Your task to perform on an android device: turn off notifications in google photos Image 0: 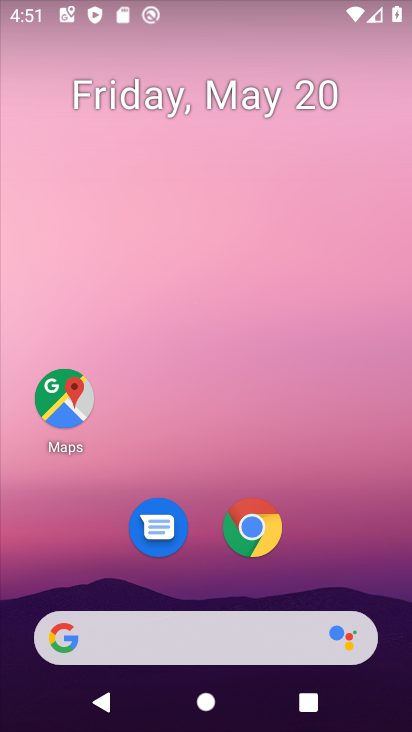
Step 0: drag from (214, 602) to (197, 166)
Your task to perform on an android device: turn off notifications in google photos Image 1: 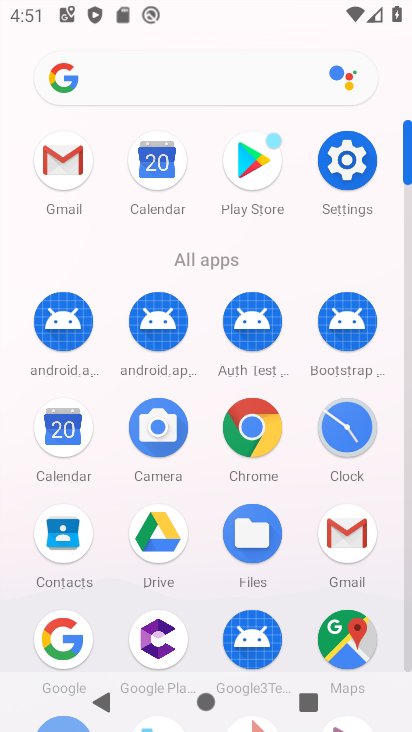
Step 1: drag from (192, 649) to (208, 309)
Your task to perform on an android device: turn off notifications in google photos Image 2: 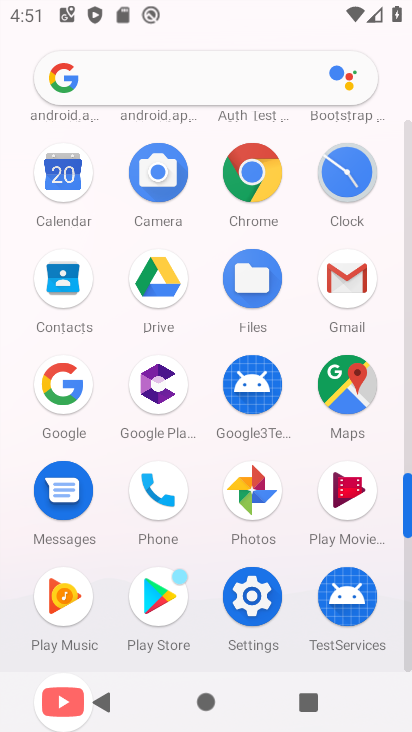
Step 2: click (258, 480)
Your task to perform on an android device: turn off notifications in google photos Image 3: 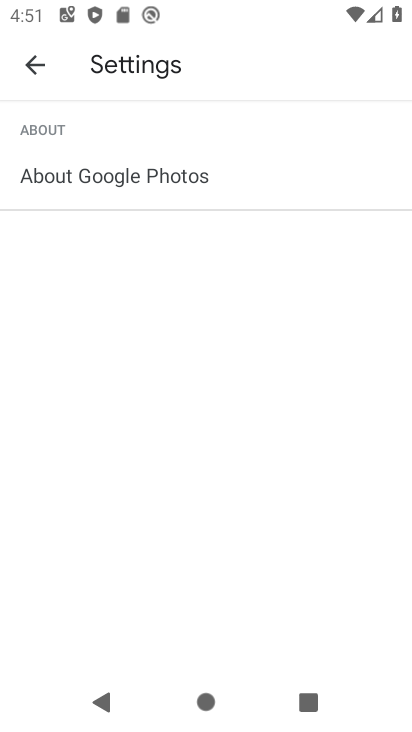
Step 3: click (31, 69)
Your task to perform on an android device: turn off notifications in google photos Image 4: 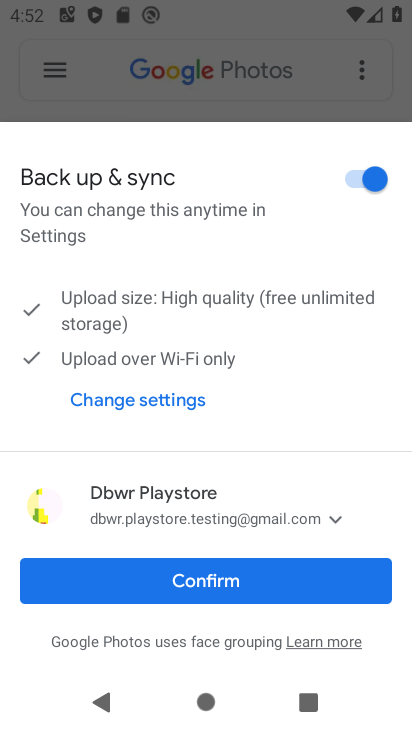
Step 4: click (227, 584)
Your task to perform on an android device: turn off notifications in google photos Image 5: 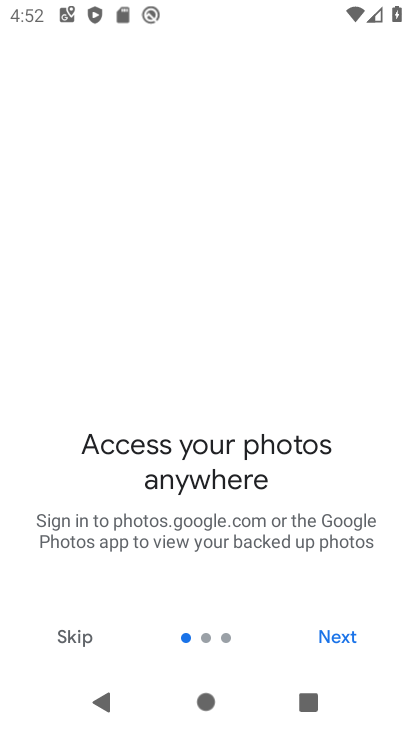
Step 5: click (300, 631)
Your task to perform on an android device: turn off notifications in google photos Image 6: 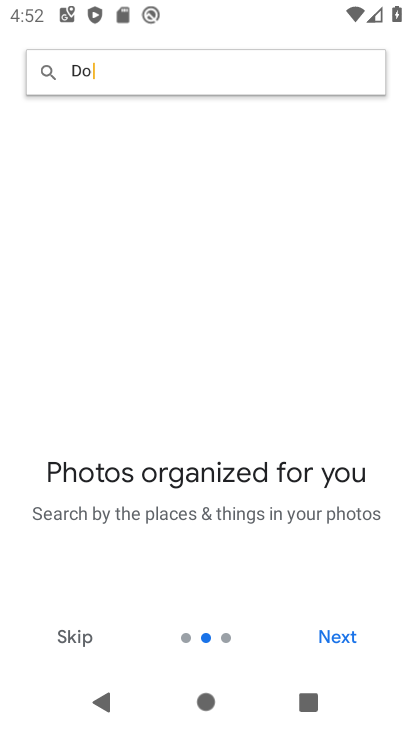
Step 6: click (313, 635)
Your task to perform on an android device: turn off notifications in google photos Image 7: 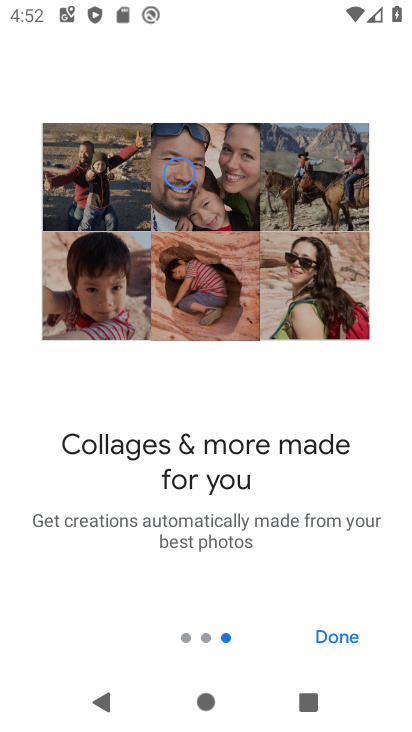
Step 7: click (313, 635)
Your task to perform on an android device: turn off notifications in google photos Image 8: 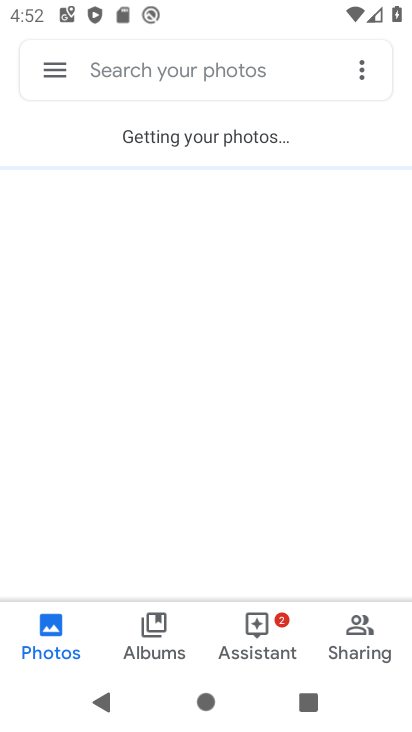
Step 8: click (54, 70)
Your task to perform on an android device: turn off notifications in google photos Image 9: 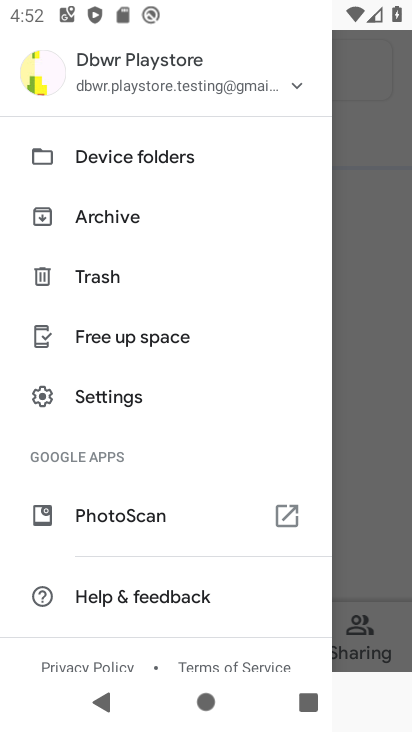
Step 9: click (127, 405)
Your task to perform on an android device: turn off notifications in google photos Image 10: 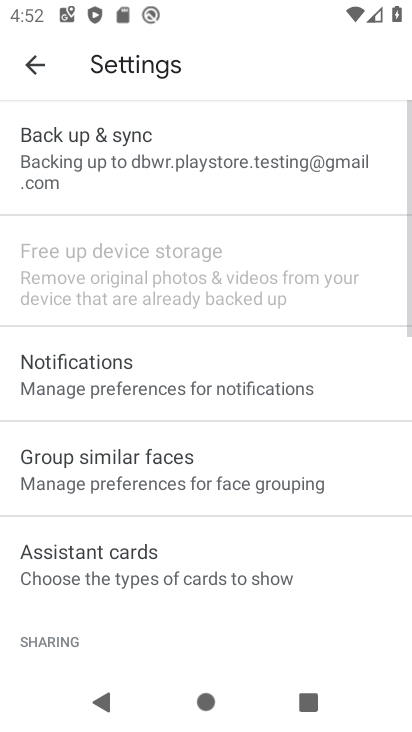
Step 10: click (101, 155)
Your task to perform on an android device: turn off notifications in google photos Image 11: 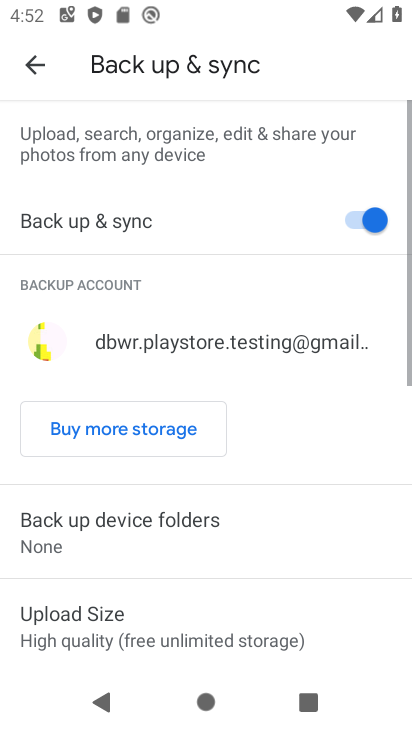
Step 11: click (35, 72)
Your task to perform on an android device: turn off notifications in google photos Image 12: 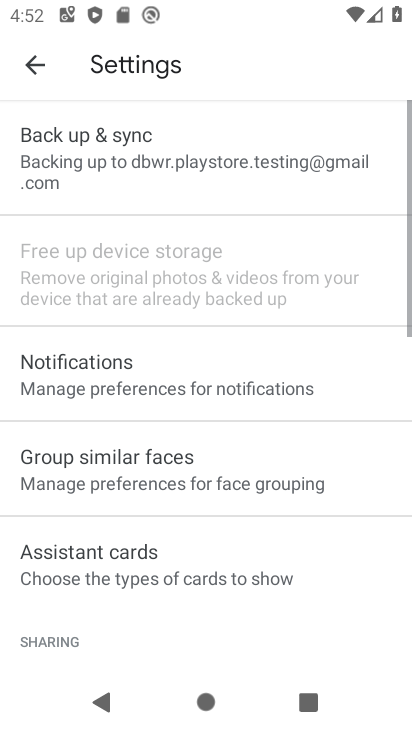
Step 12: click (142, 369)
Your task to perform on an android device: turn off notifications in google photos Image 13: 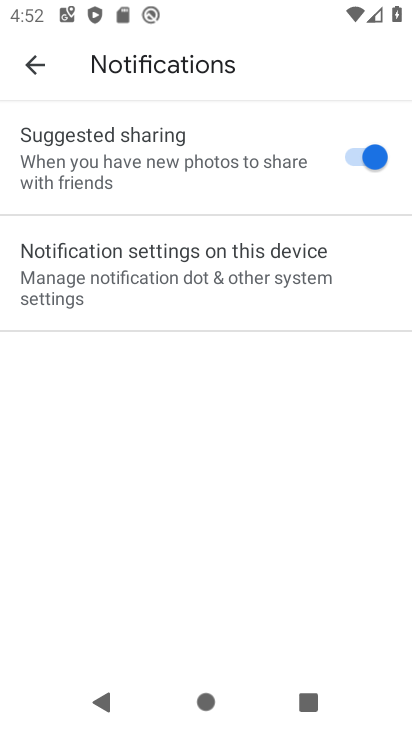
Step 13: click (150, 270)
Your task to perform on an android device: turn off notifications in google photos Image 14: 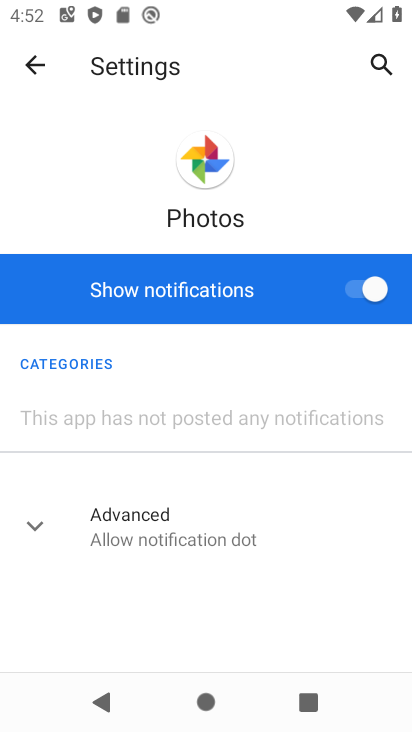
Step 14: click (349, 286)
Your task to perform on an android device: turn off notifications in google photos Image 15: 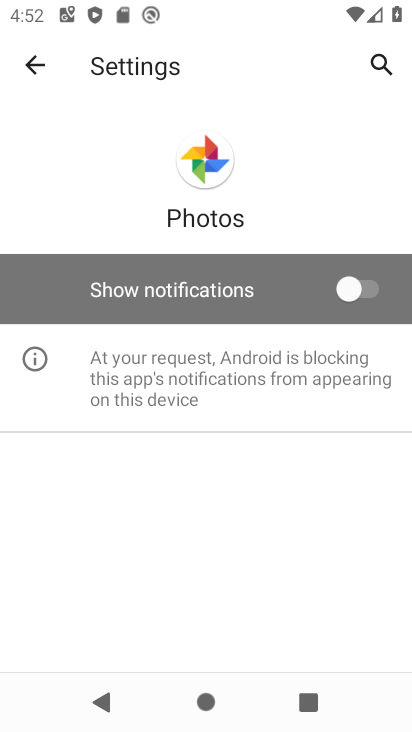
Step 15: task complete